Your task to perform on an android device: open wifi settings Image 0: 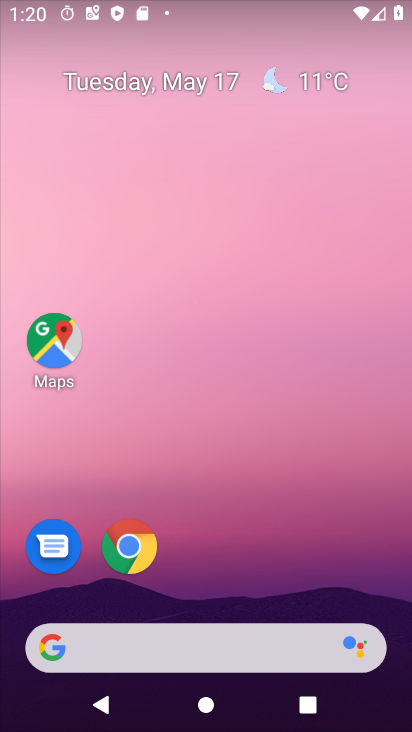
Step 0: drag from (208, 579) to (331, 184)
Your task to perform on an android device: open wifi settings Image 1: 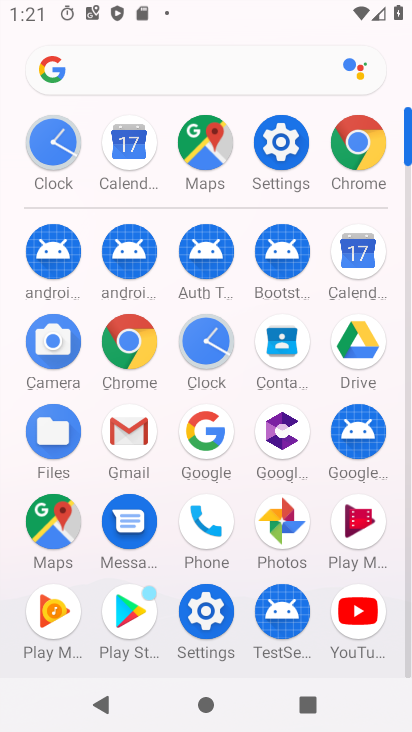
Step 1: click (285, 147)
Your task to perform on an android device: open wifi settings Image 2: 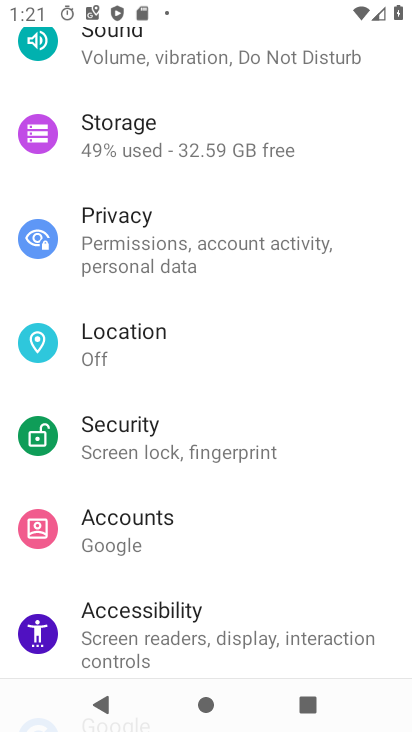
Step 2: drag from (340, 105) to (220, 518)
Your task to perform on an android device: open wifi settings Image 3: 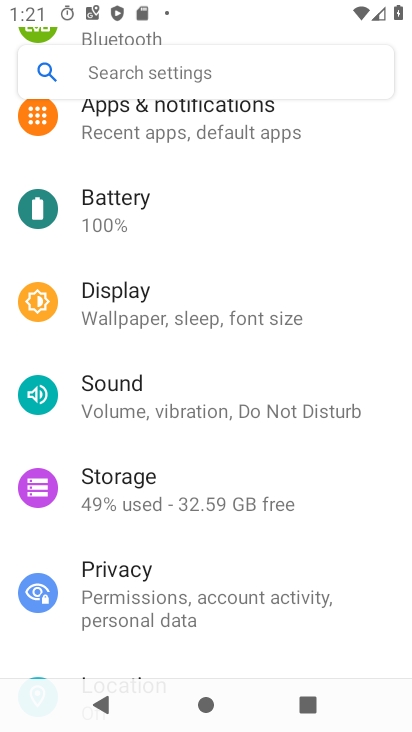
Step 3: drag from (298, 189) to (205, 493)
Your task to perform on an android device: open wifi settings Image 4: 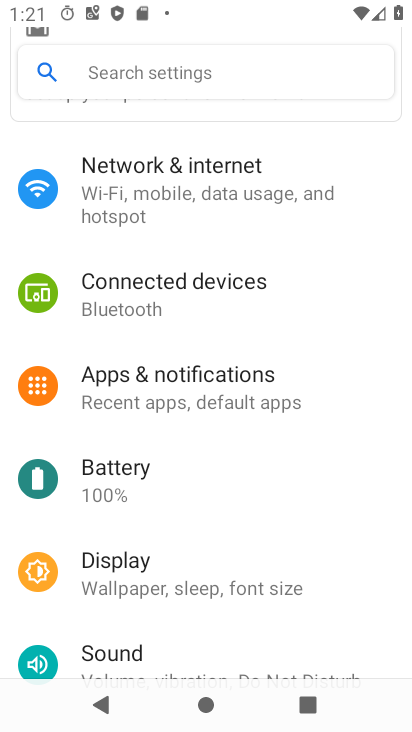
Step 4: click (205, 180)
Your task to perform on an android device: open wifi settings Image 5: 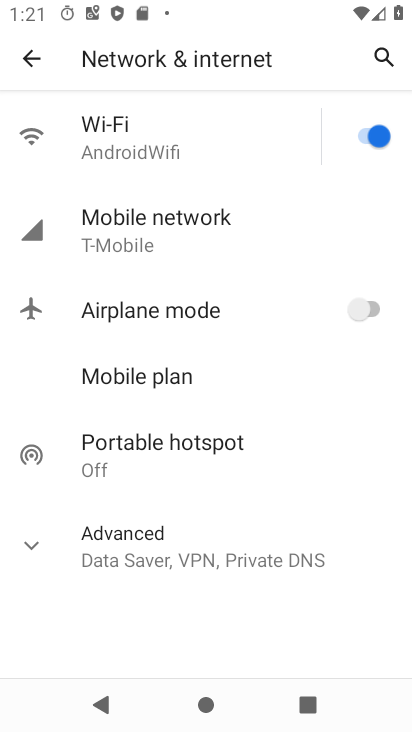
Step 5: click (142, 154)
Your task to perform on an android device: open wifi settings Image 6: 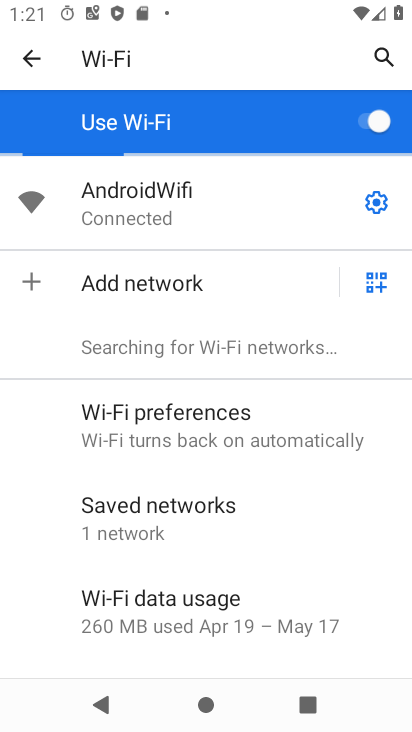
Step 6: task complete